Your task to perform on an android device: remove spam from my inbox in the gmail app Image 0: 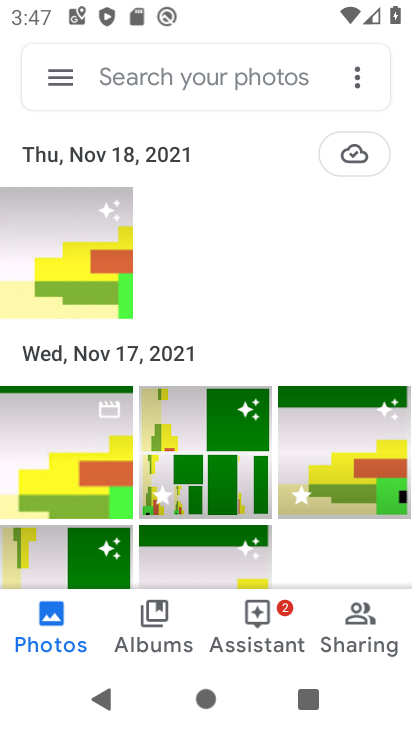
Step 0: press back button
Your task to perform on an android device: remove spam from my inbox in the gmail app Image 1: 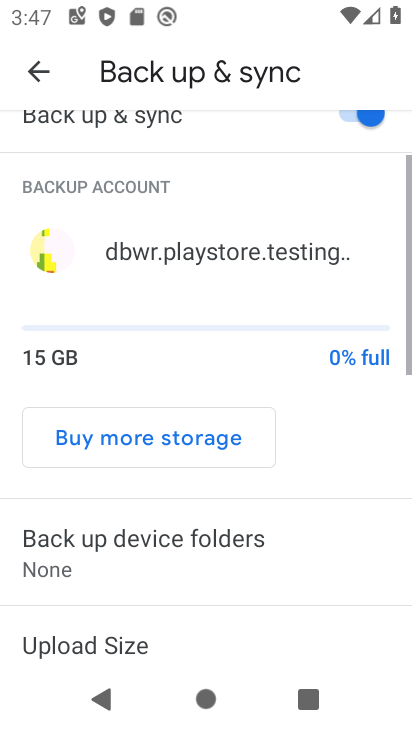
Step 1: press back button
Your task to perform on an android device: remove spam from my inbox in the gmail app Image 2: 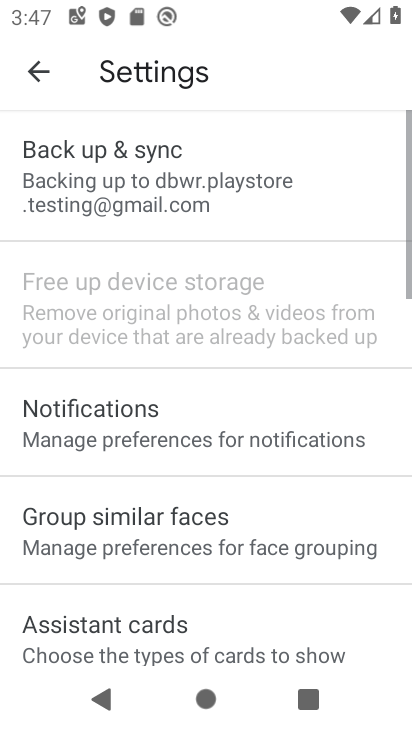
Step 2: press back button
Your task to perform on an android device: remove spam from my inbox in the gmail app Image 3: 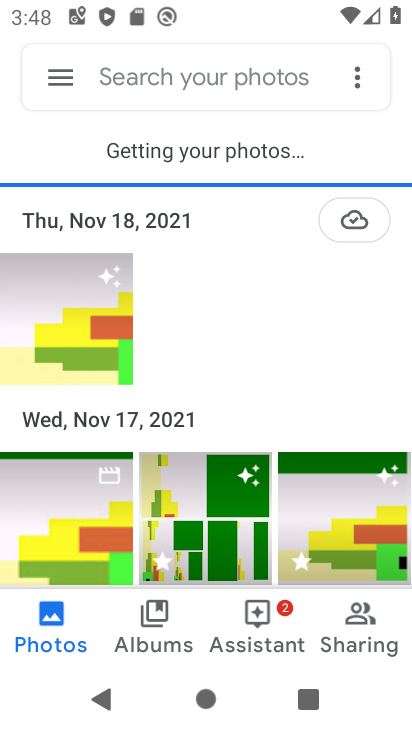
Step 3: press back button
Your task to perform on an android device: remove spam from my inbox in the gmail app Image 4: 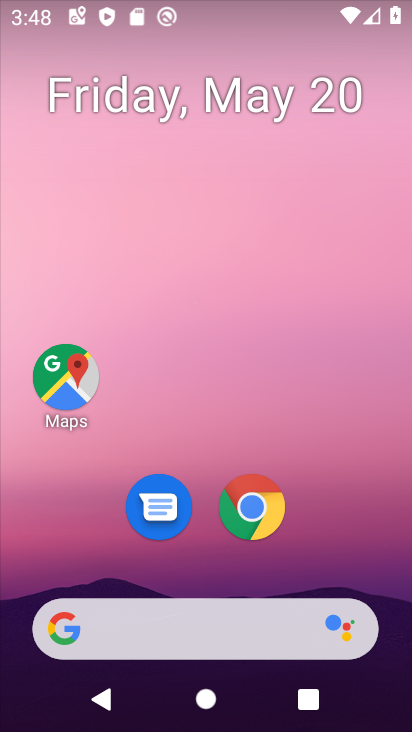
Step 4: drag from (355, 556) to (254, 82)
Your task to perform on an android device: remove spam from my inbox in the gmail app Image 5: 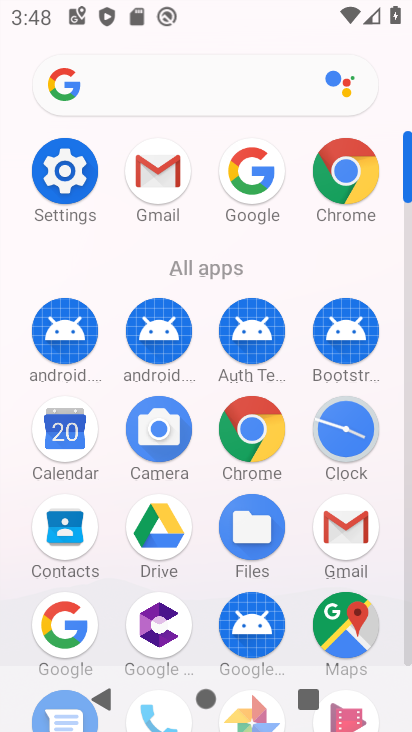
Step 5: click (157, 173)
Your task to perform on an android device: remove spam from my inbox in the gmail app Image 6: 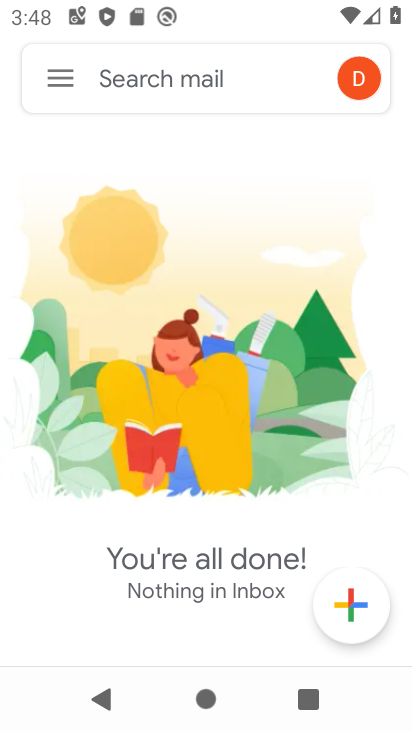
Step 6: click (58, 80)
Your task to perform on an android device: remove spam from my inbox in the gmail app Image 7: 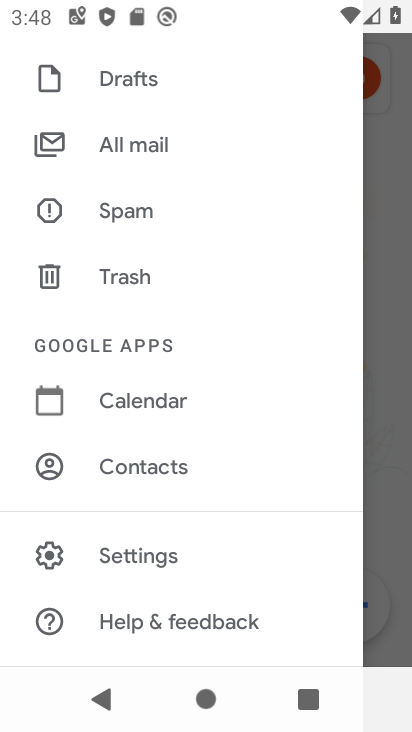
Step 7: click (135, 215)
Your task to perform on an android device: remove spam from my inbox in the gmail app Image 8: 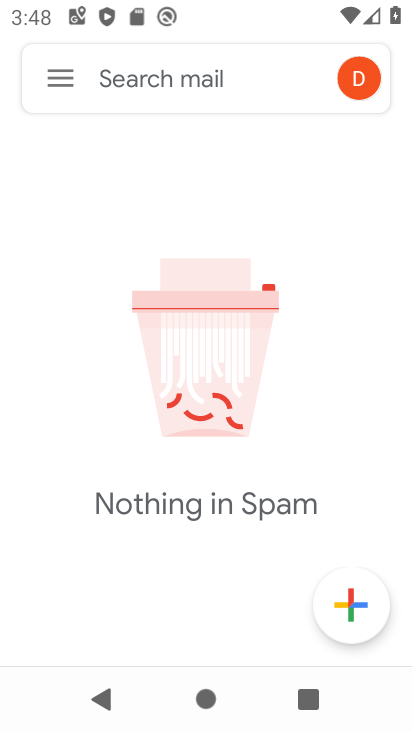
Step 8: task complete